Your task to perform on an android device: Open eBay Image 0: 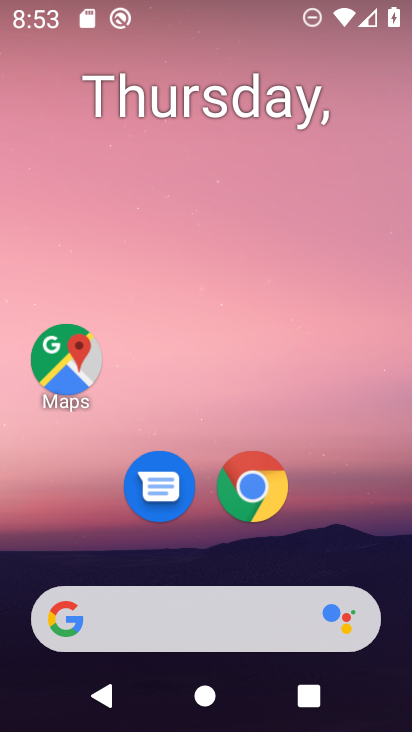
Step 0: click (245, 490)
Your task to perform on an android device: Open eBay Image 1: 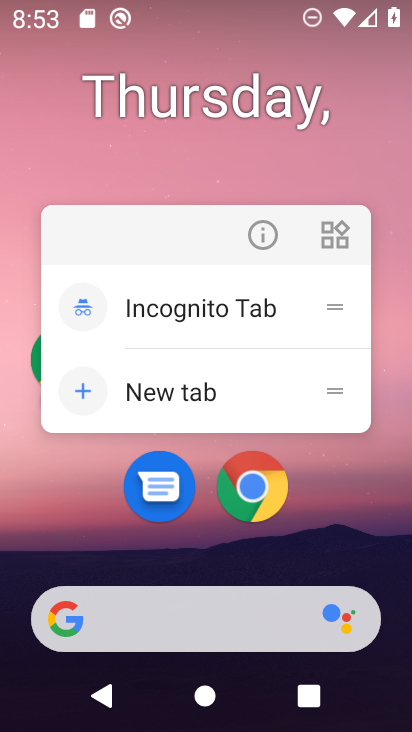
Step 1: click (251, 492)
Your task to perform on an android device: Open eBay Image 2: 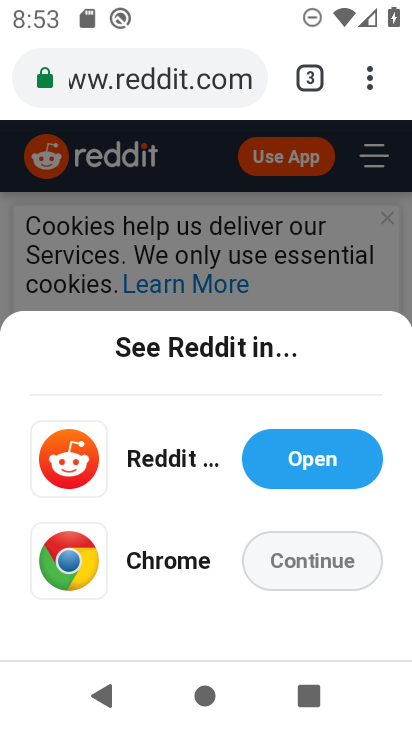
Step 2: click (315, 84)
Your task to perform on an android device: Open eBay Image 3: 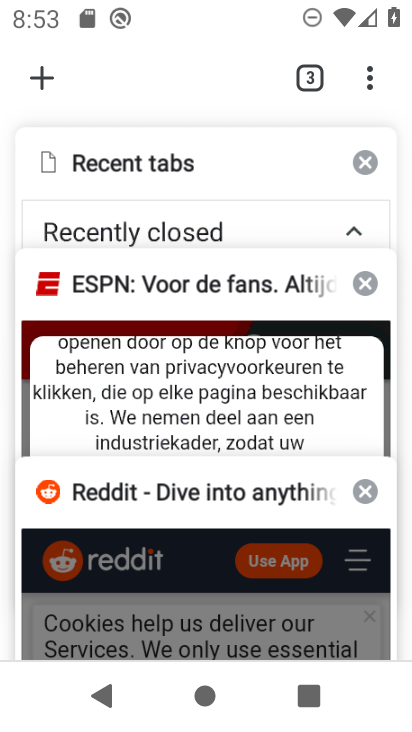
Step 3: click (37, 82)
Your task to perform on an android device: Open eBay Image 4: 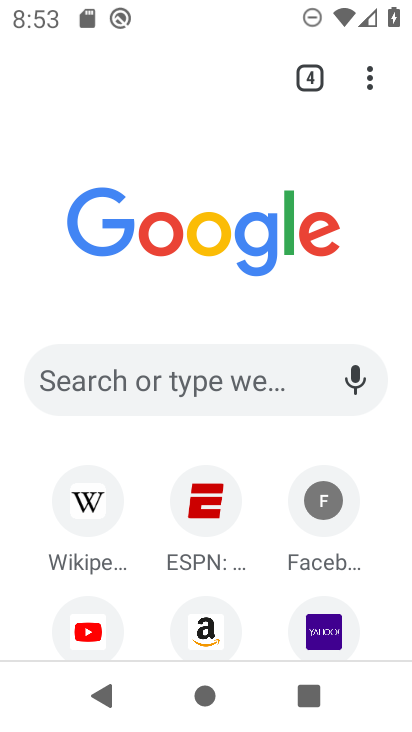
Step 4: click (131, 374)
Your task to perform on an android device: Open eBay Image 5: 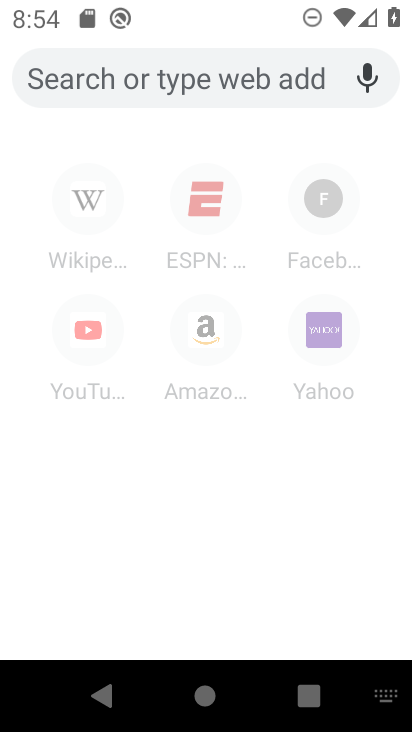
Step 5: type "ebay"
Your task to perform on an android device: Open eBay Image 6: 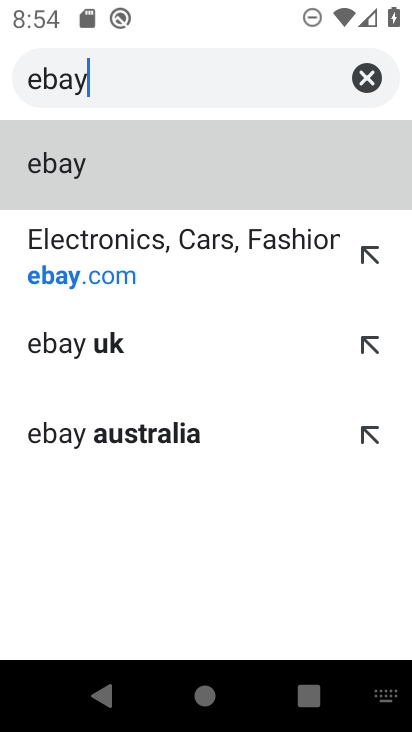
Step 6: click (118, 260)
Your task to perform on an android device: Open eBay Image 7: 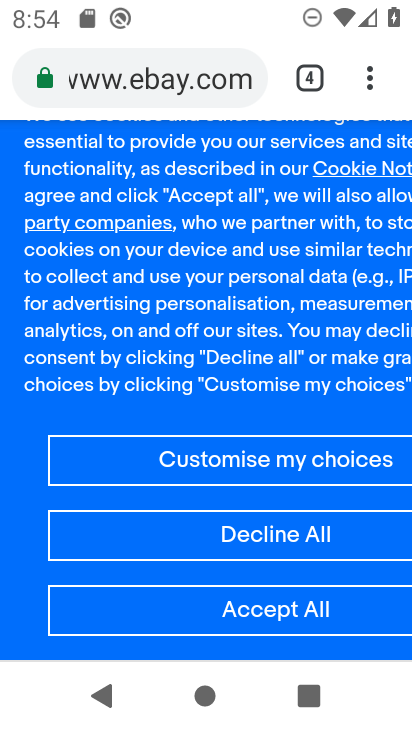
Step 7: task complete